Your task to perform on an android device: When is my next meeting? Image 0: 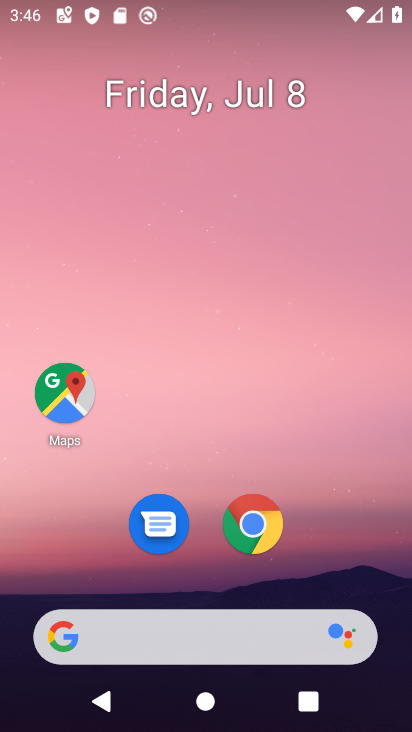
Step 0: drag from (206, 437) to (223, 0)
Your task to perform on an android device: When is my next meeting? Image 1: 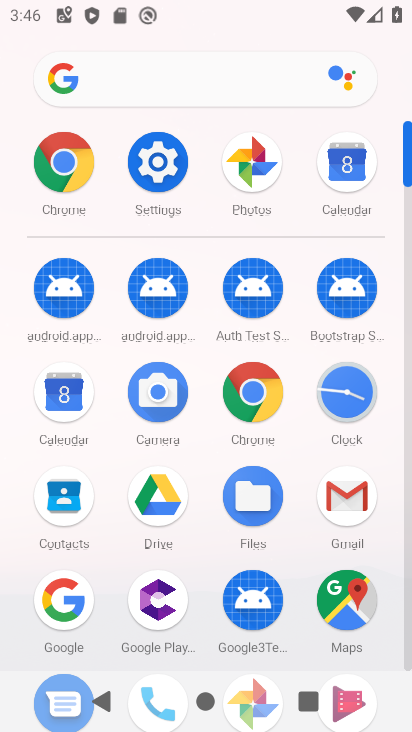
Step 1: click (344, 160)
Your task to perform on an android device: When is my next meeting? Image 2: 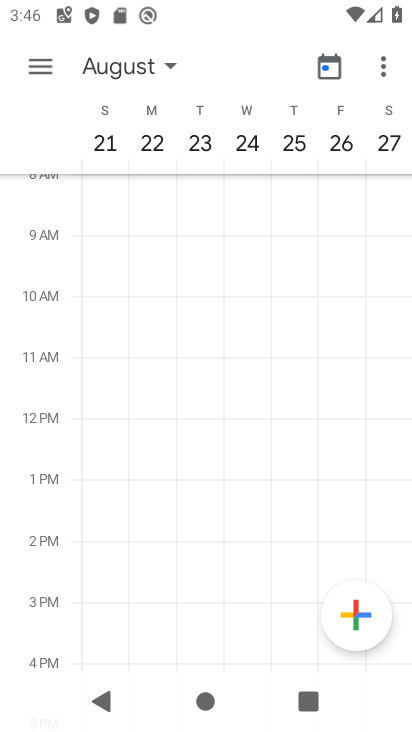
Step 2: click (42, 68)
Your task to perform on an android device: When is my next meeting? Image 3: 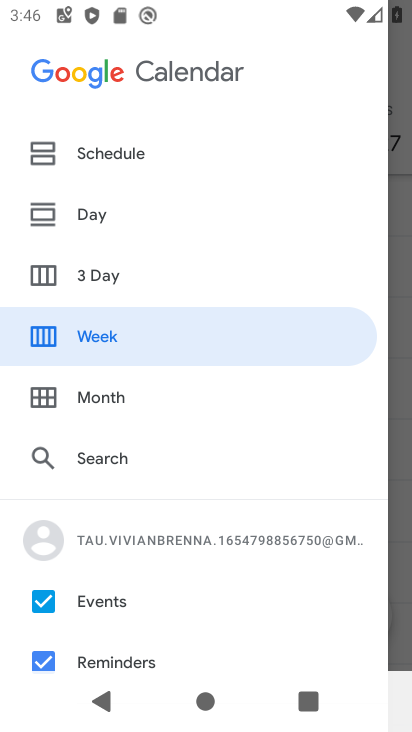
Step 3: click (34, 393)
Your task to perform on an android device: When is my next meeting? Image 4: 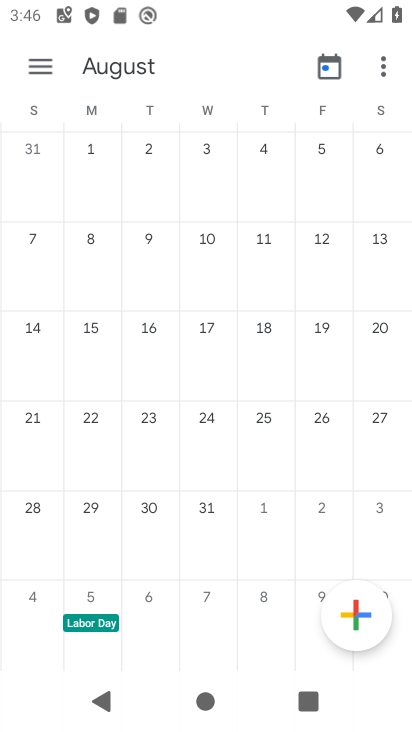
Step 4: drag from (132, 380) to (408, 327)
Your task to perform on an android device: When is my next meeting? Image 5: 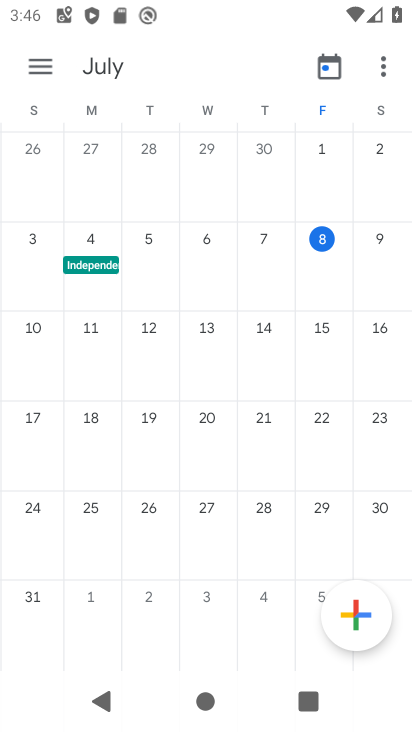
Step 5: click (318, 242)
Your task to perform on an android device: When is my next meeting? Image 6: 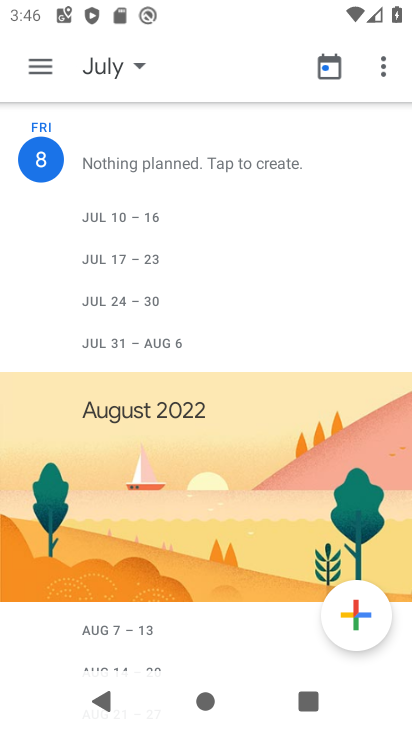
Step 6: task complete